Your task to perform on an android device: Open the map Image 0: 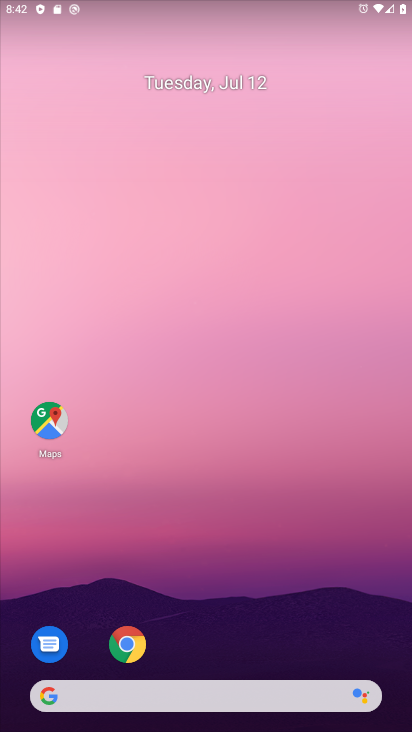
Step 0: click (100, 694)
Your task to perform on an android device: Open the map Image 1: 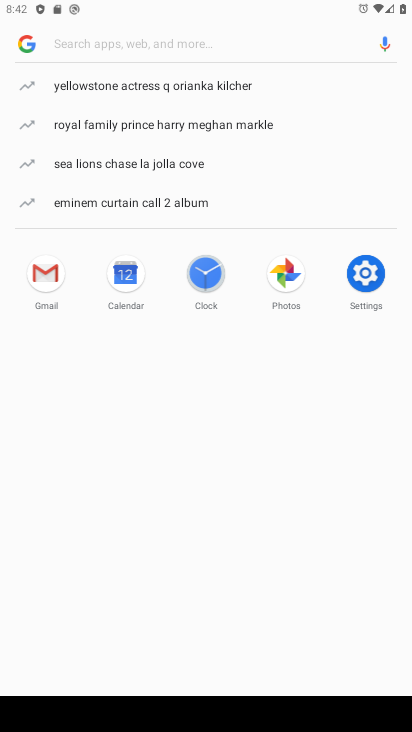
Step 1: press home button
Your task to perform on an android device: Open the map Image 2: 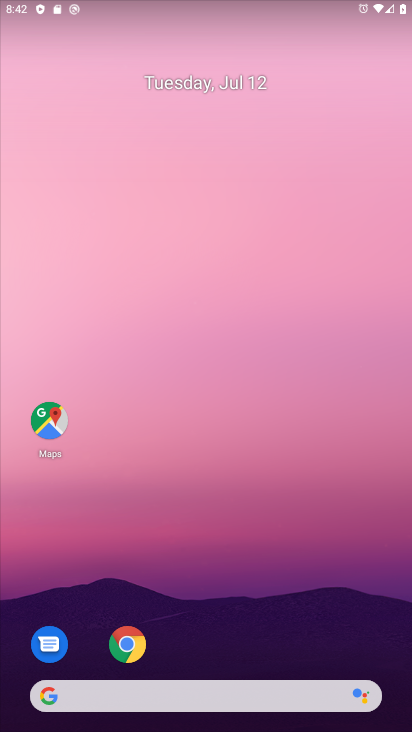
Step 2: click (42, 403)
Your task to perform on an android device: Open the map Image 3: 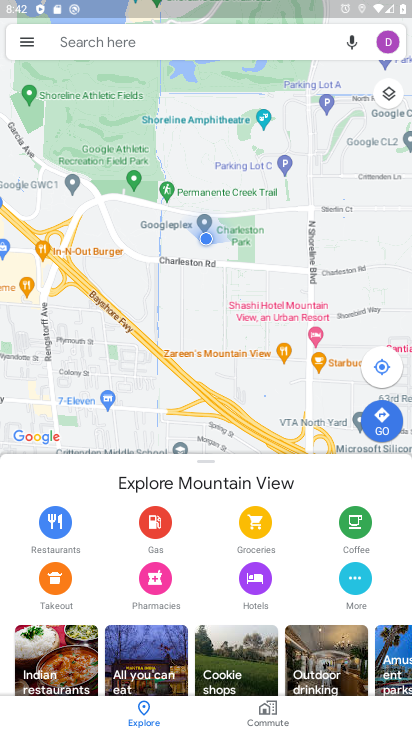
Step 3: task complete